Your task to perform on an android device: turn off smart reply in the gmail app Image 0: 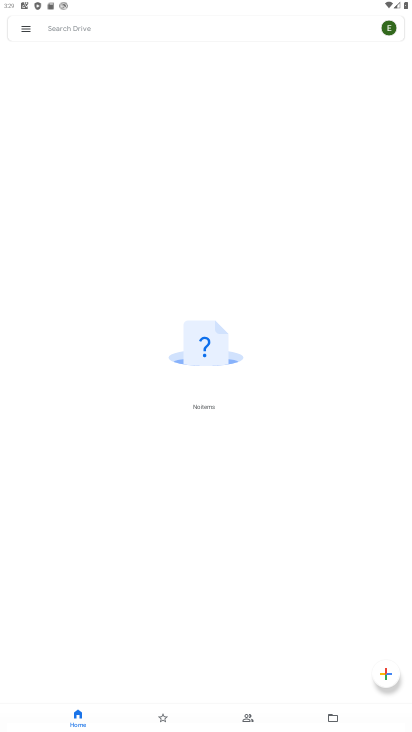
Step 0: press home button
Your task to perform on an android device: turn off smart reply in the gmail app Image 1: 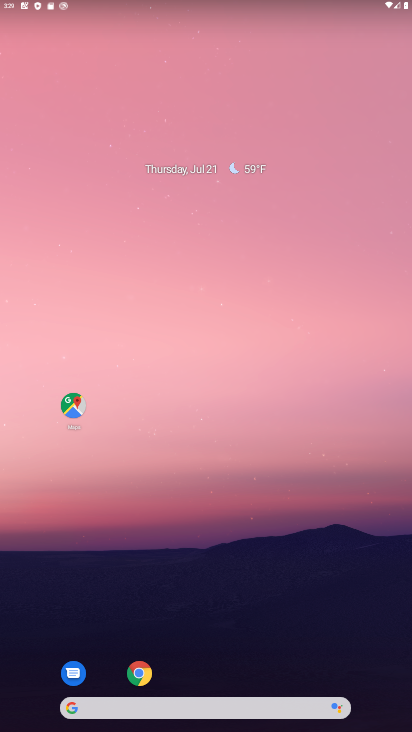
Step 1: drag from (382, 670) to (342, 199)
Your task to perform on an android device: turn off smart reply in the gmail app Image 2: 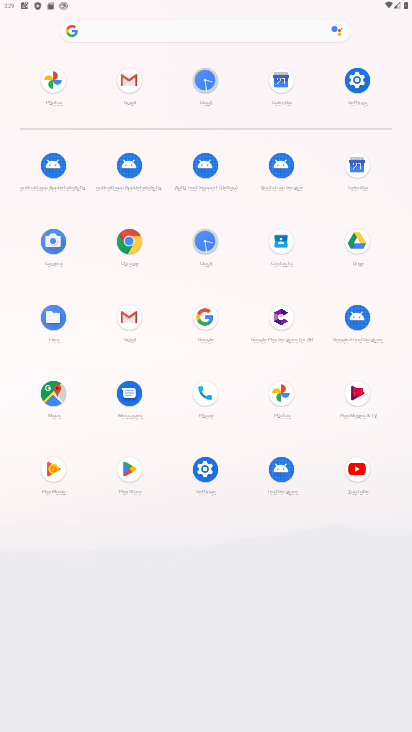
Step 2: click (128, 317)
Your task to perform on an android device: turn off smart reply in the gmail app Image 3: 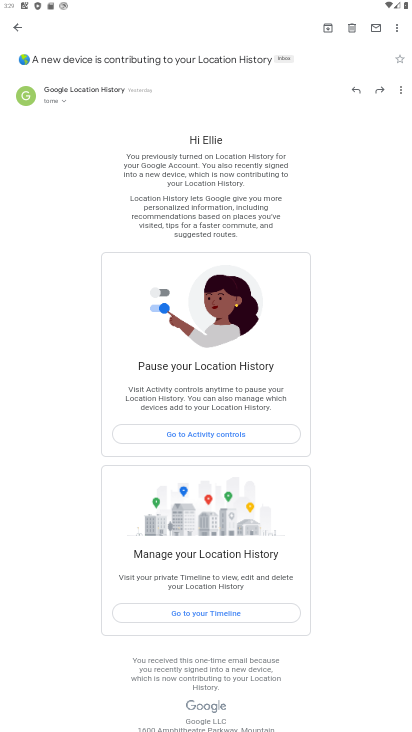
Step 3: press back button
Your task to perform on an android device: turn off smart reply in the gmail app Image 4: 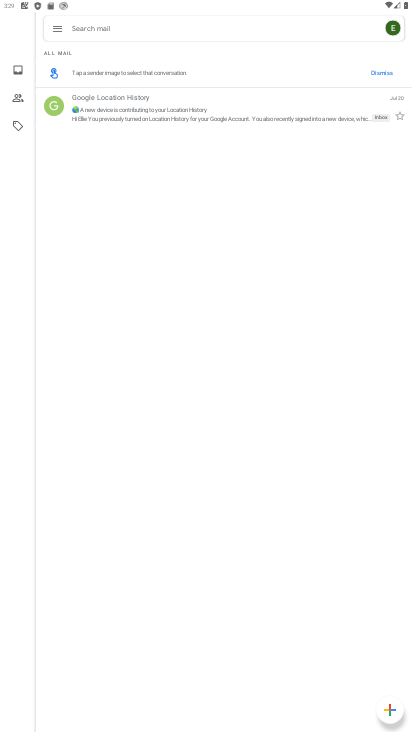
Step 4: click (55, 34)
Your task to perform on an android device: turn off smart reply in the gmail app Image 5: 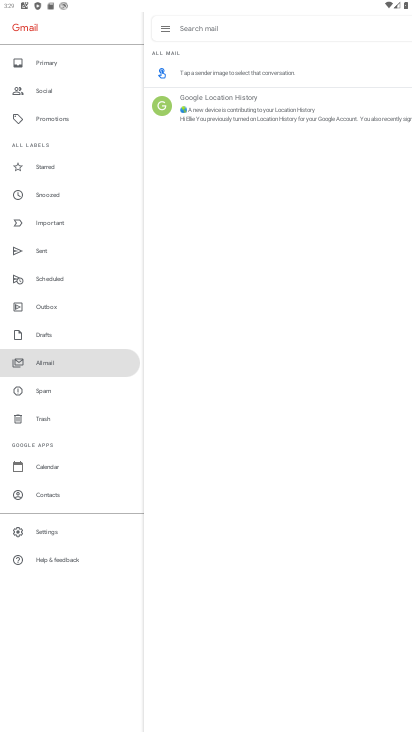
Step 5: click (45, 528)
Your task to perform on an android device: turn off smart reply in the gmail app Image 6: 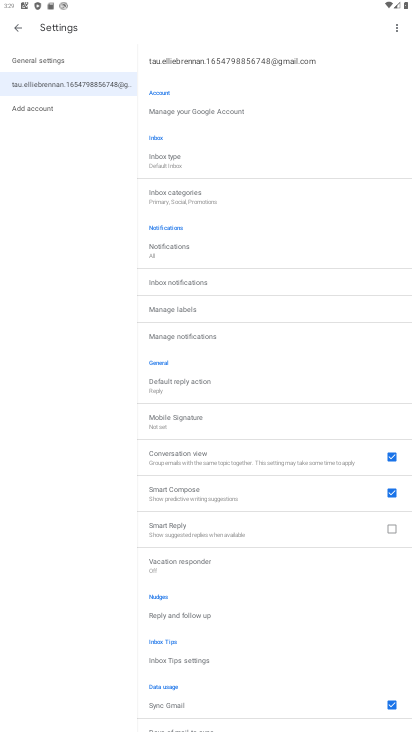
Step 6: task complete